Your task to perform on an android device: open a new tab in the chrome app Image 0: 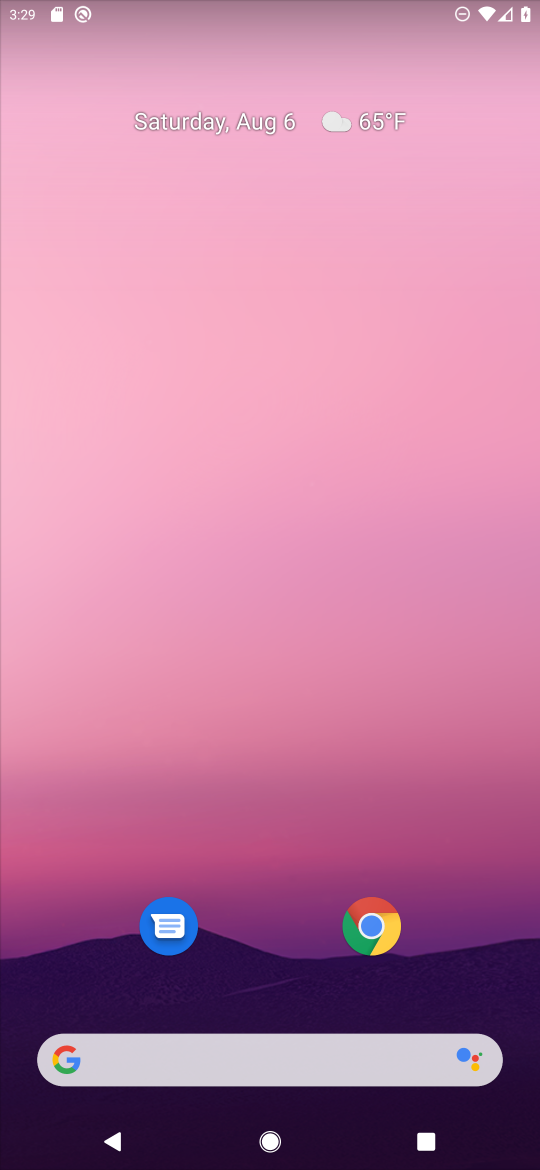
Step 0: click (353, 908)
Your task to perform on an android device: open a new tab in the chrome app Image 1: 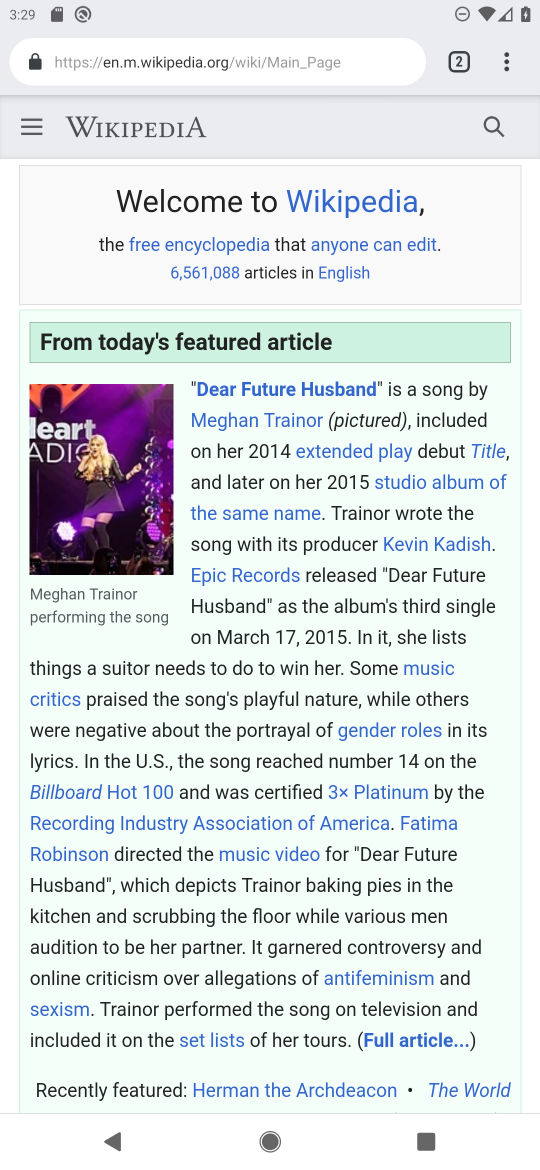
Step 1: click (472, 62)
Your task to perform on an android device: open a new tab in the chrome app Image 2: 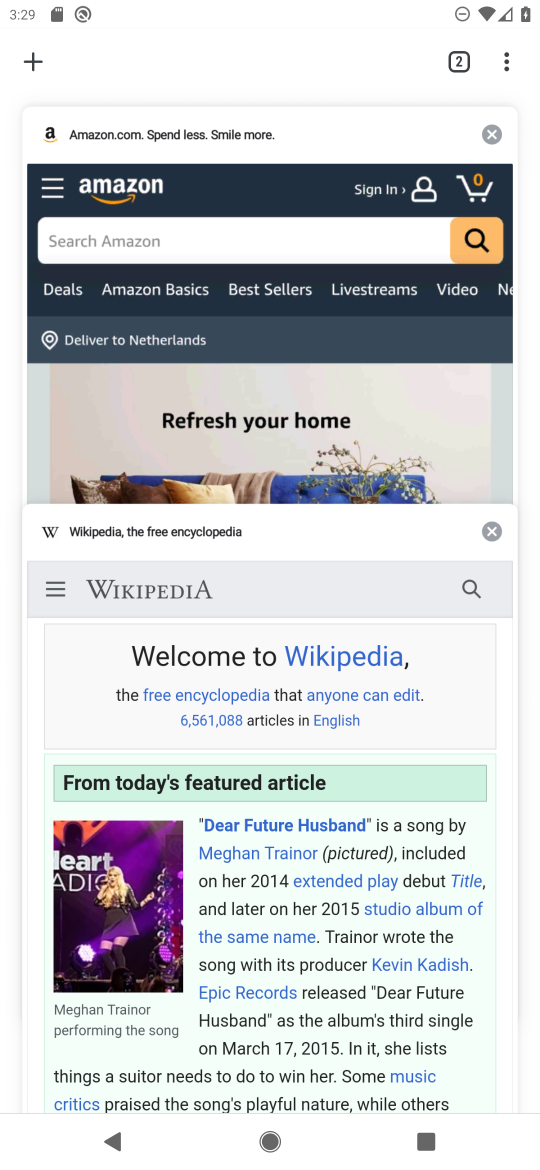
Step 2: click (29, 66)
Your task to perform on an android device: open a new tab in the chrome app Image 3: 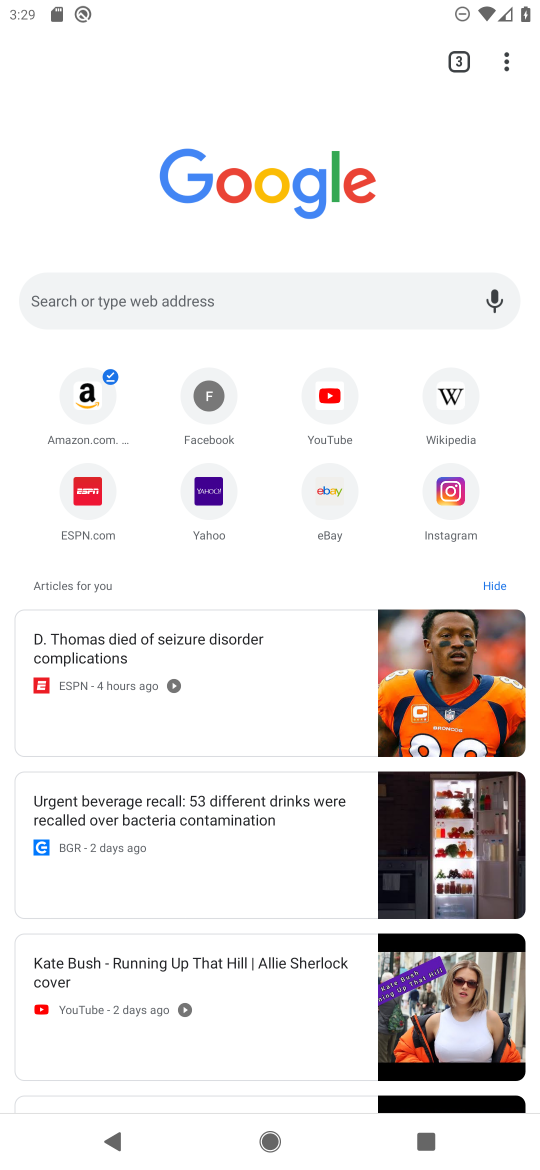
Step 3: task complete